Your task to perform on an android device: Show the shopping cart on target.com. Search for acer predator on target.com, select the first entry, add it to the cart, then select checkout. Image 0: 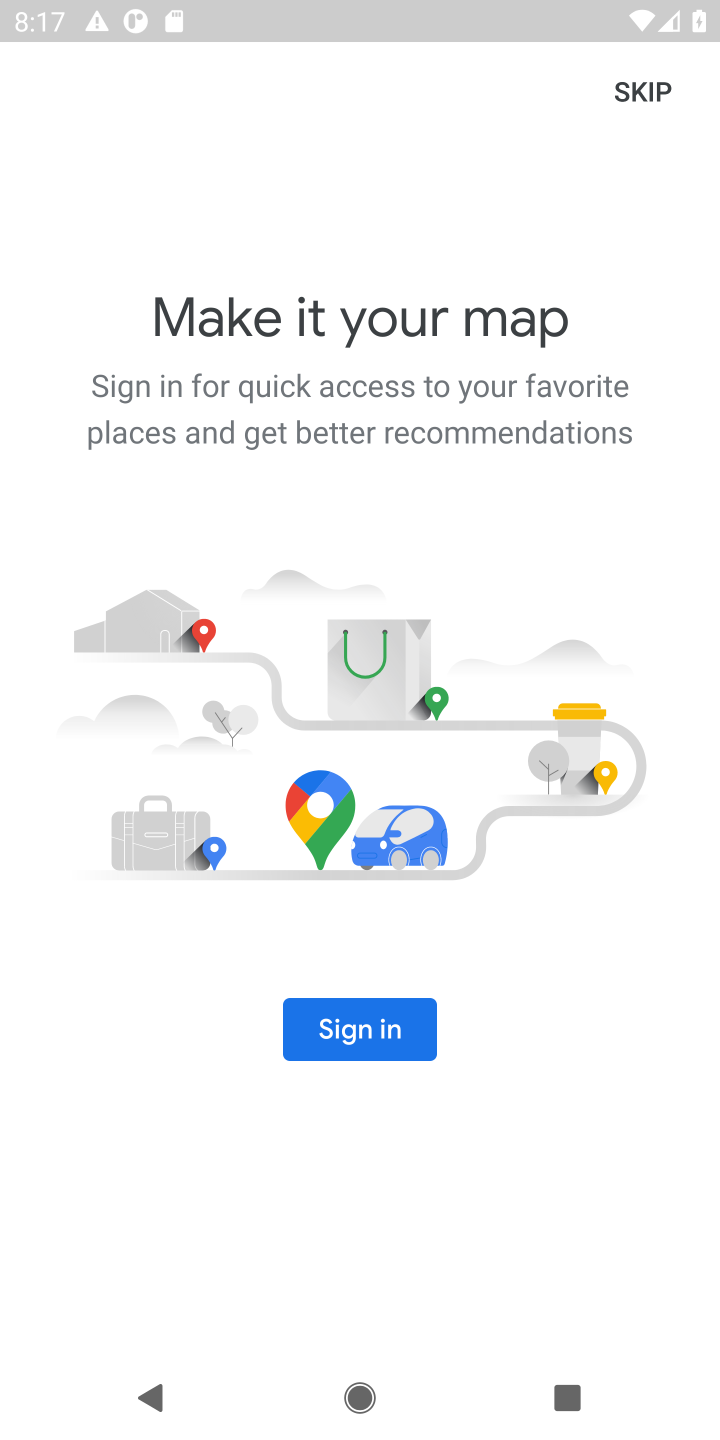
Step 0: press home button
Your task to perform on an android device: Show the shopping cart on target.com. Search for acer predator on target.com, select the first entry, add it to the cart, then select checkout. Image 1: 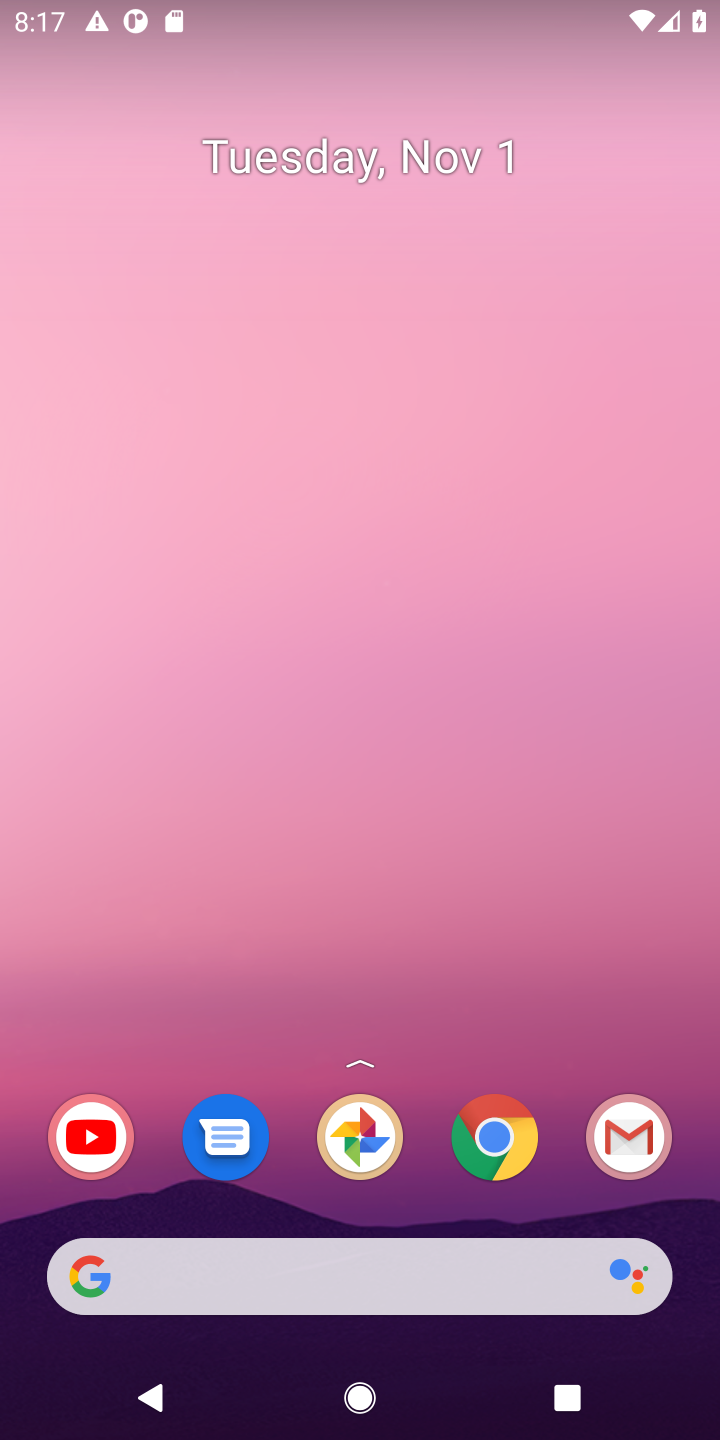
Step 1: click (347, 1292)
Your task to perform on an android device: Show the shopping cart on target.com. Search for acer predator on target.com, select the first entry, add it to the cart, then select checkout. Image 2: 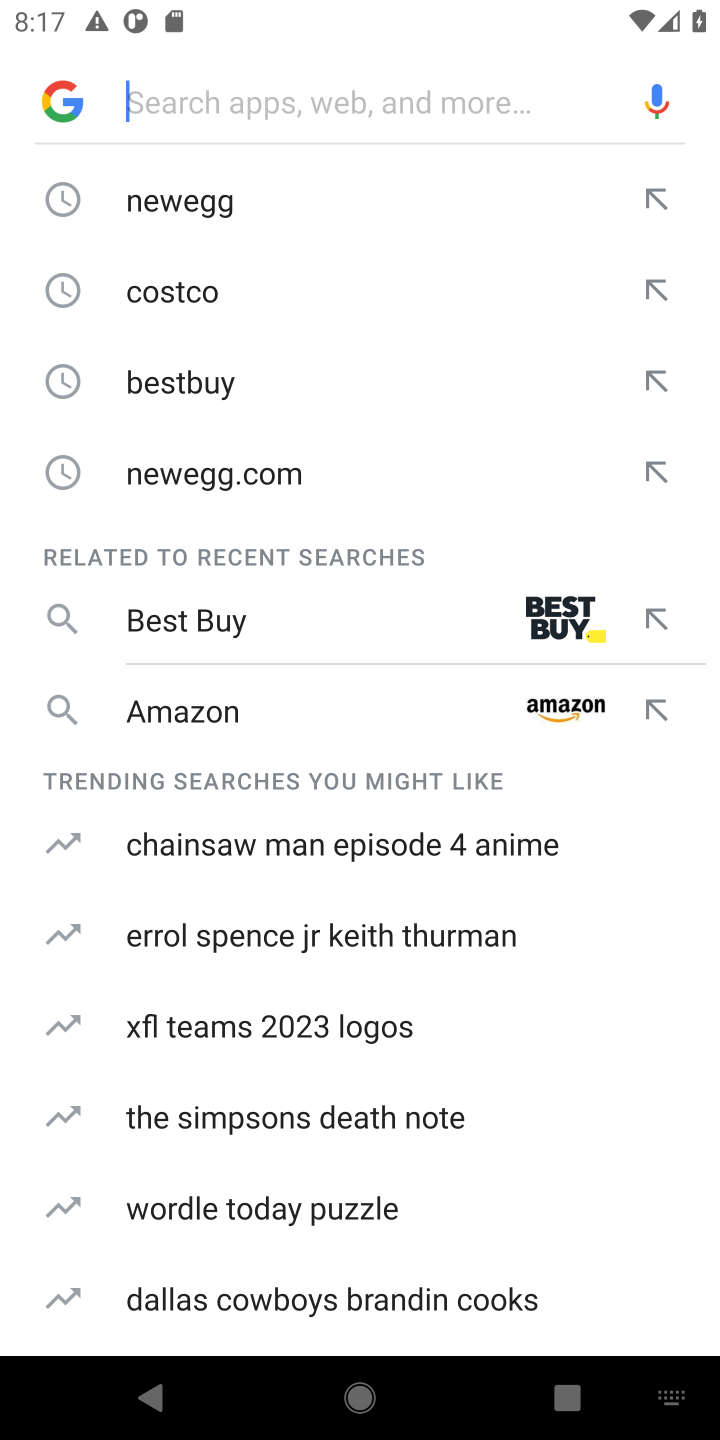
Step 2: type "target.com."
Your task to perform on an android device: Show the shopping cart on target.com. Search for acer predator on target.com, select the first entry, add it to the cart, then select checkout. Image 3: 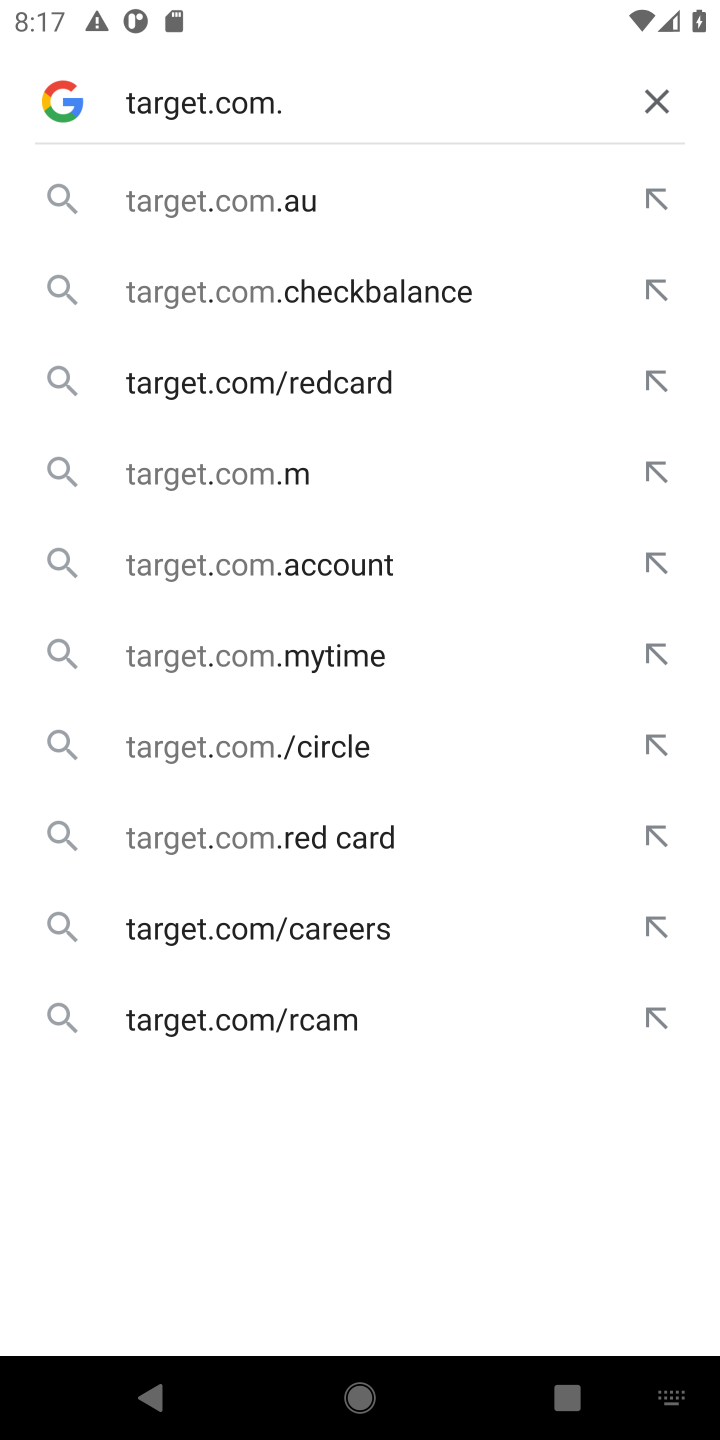
Step 3: click (192, 462)
Your task to perform on an android device: Show the shopping cart on target.com. Search for acer predator on target.com, select the first entry, add it to the cart, then select checkout. Image 4: 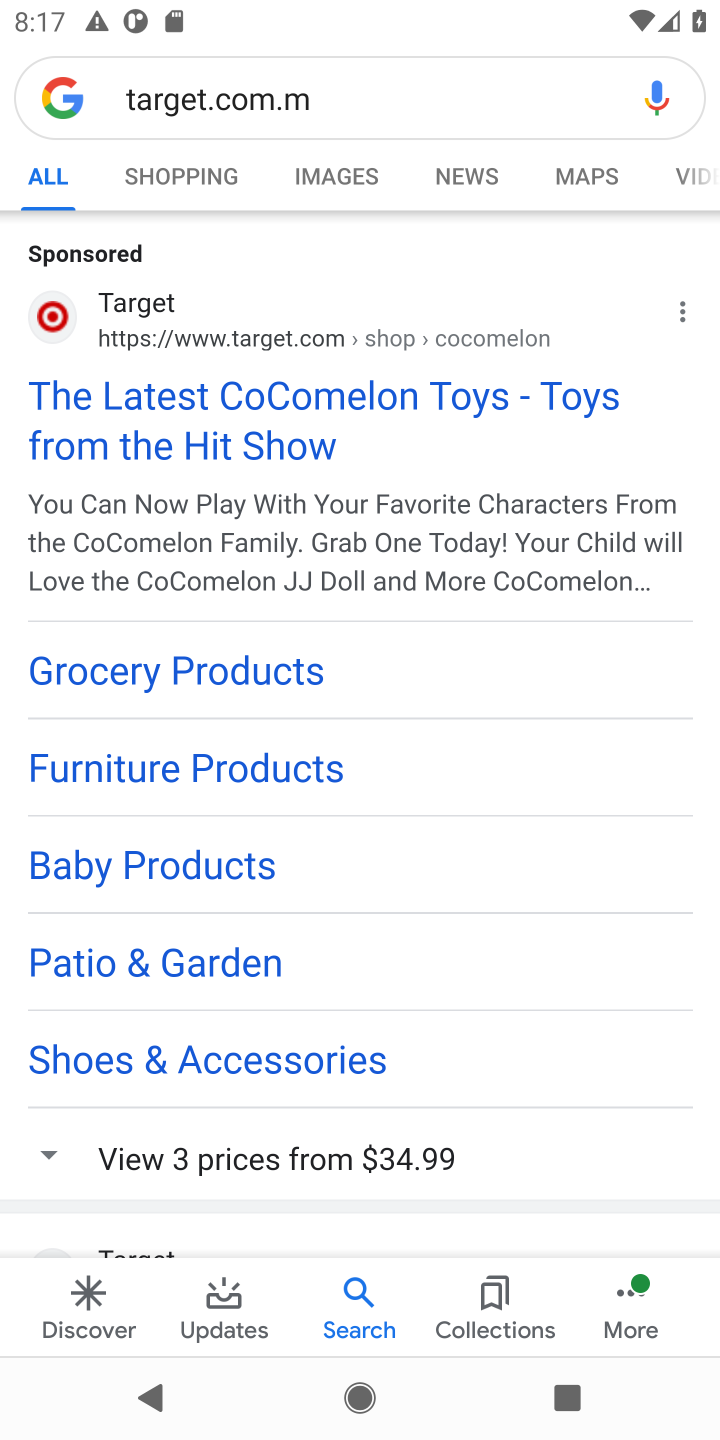
Step 4: click (141, 332)
Your task to perform on an android device: Show the shopping cart on target.com. Search for acer predator on target.com, select the first entry, add it to the cart, then select checkout. Image 5: 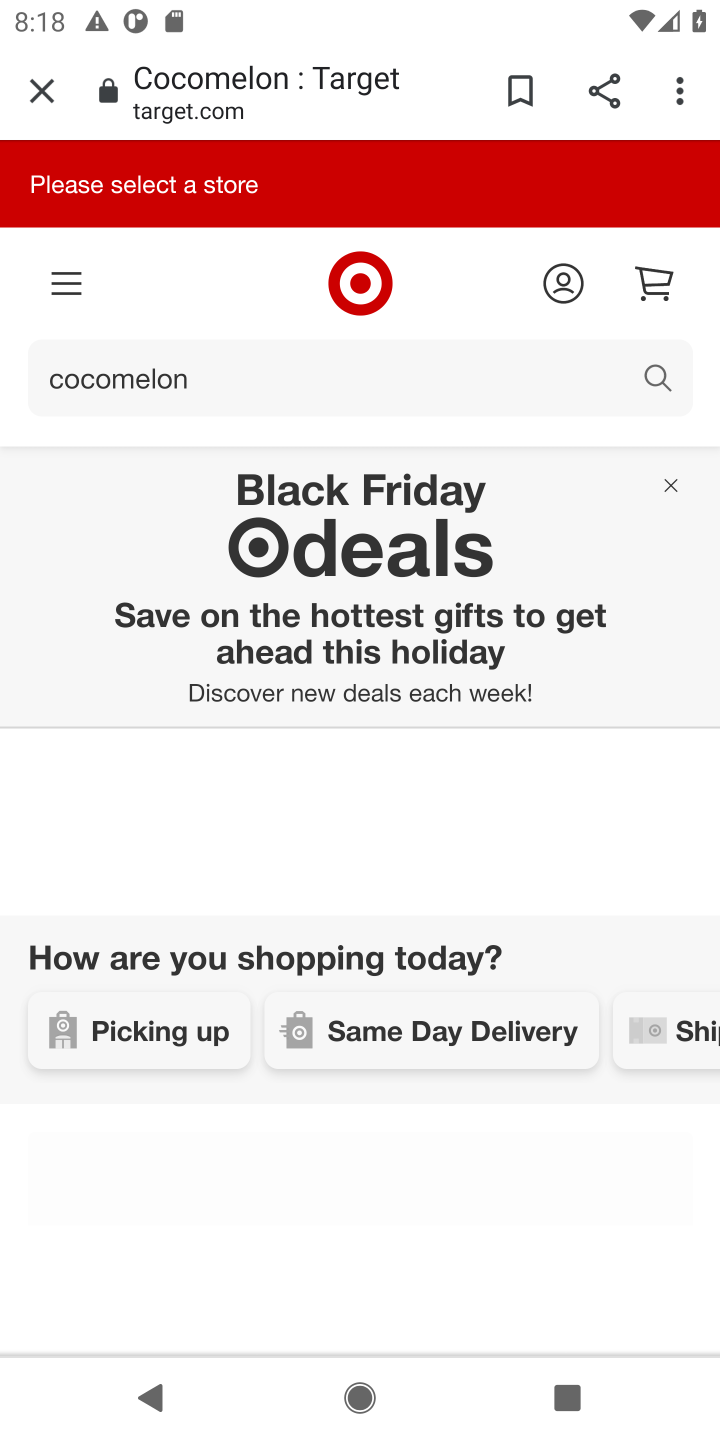
Step 5: click (264, 378)
Your task to perform on an android device: Show the shopping cart on target.com. Search for acer predator on target.com, select the first entry, add it to the cart, then select checkout. Image 6: 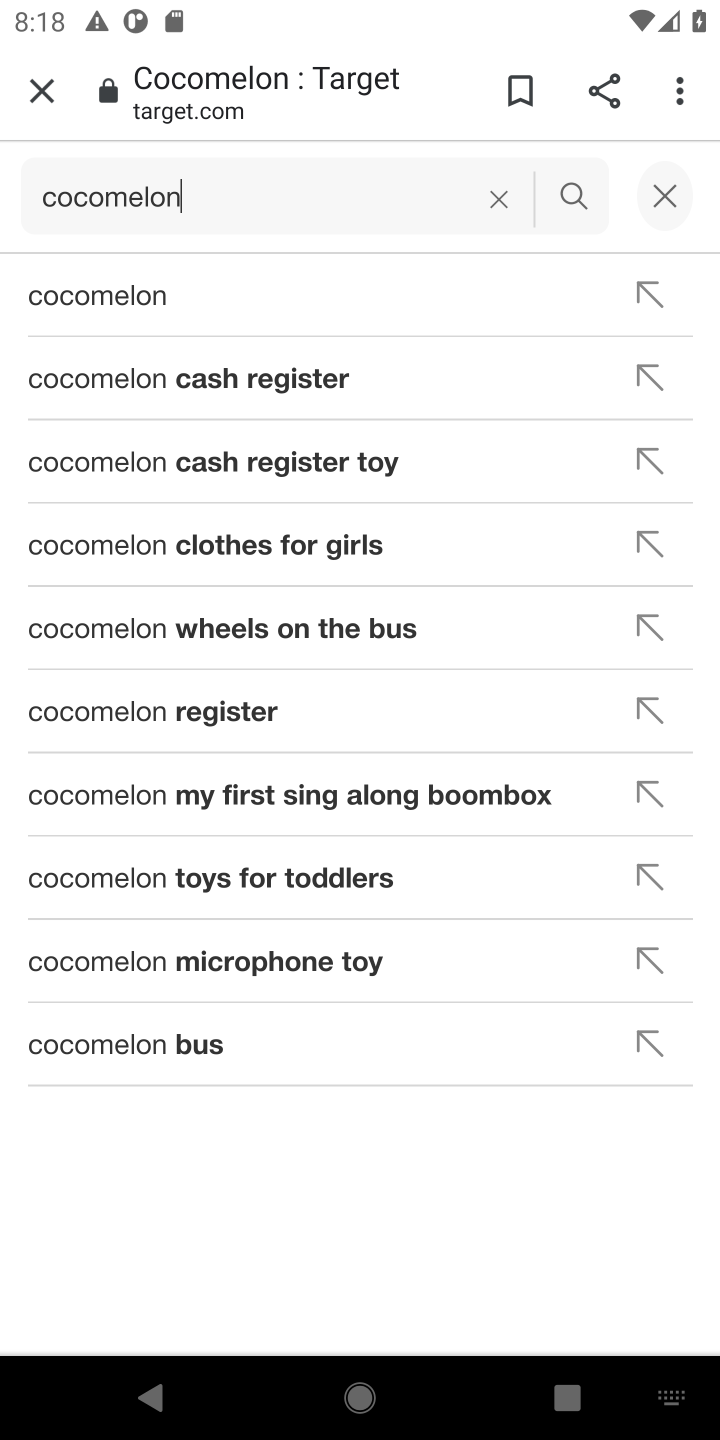
Step 6: click (491, 197)
Your task to perform on an android device: Show the shopping cart on target.com. Search for acer predator on target.com, select the first entry, add it to the cart, then select checkout. Image 7: 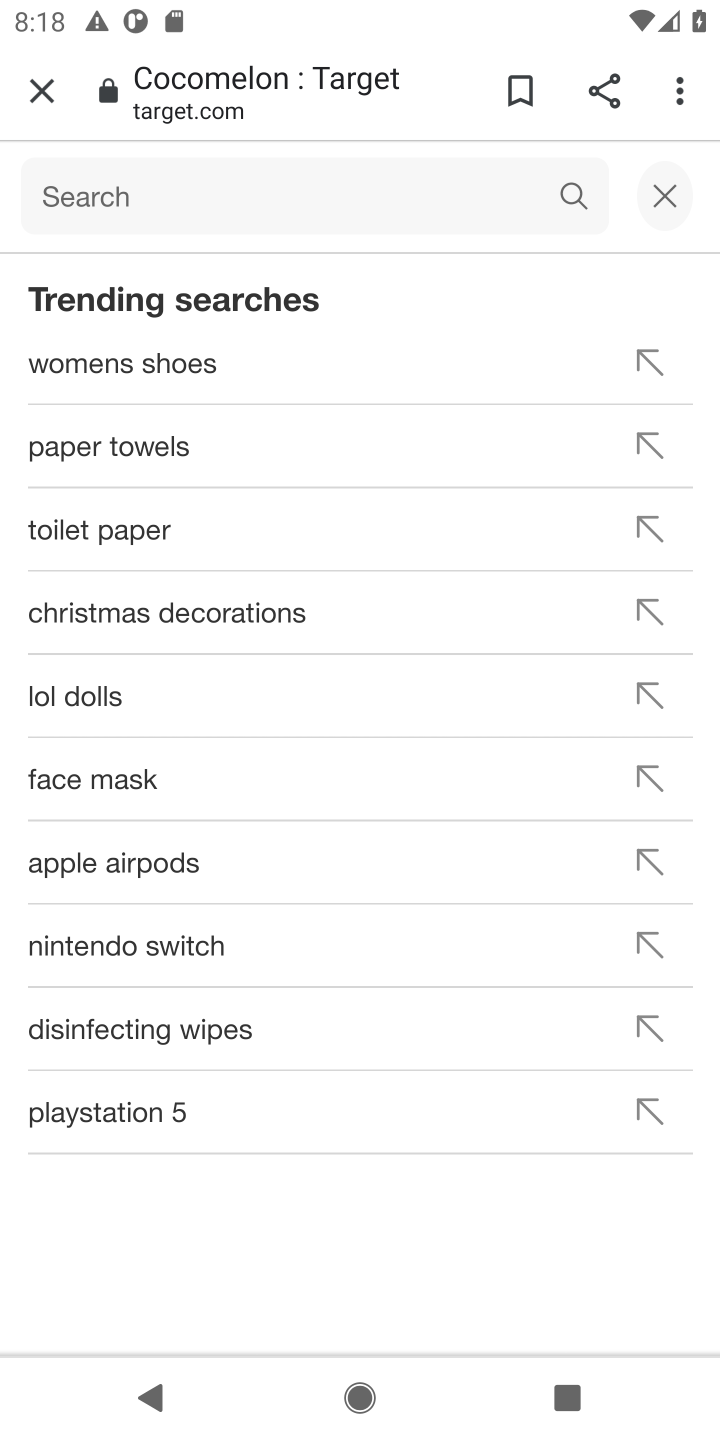
Step 7: click (493, 186)
Your task to perform on an android device: Show the shopping cart on target.com. Search for acer predator on target.com, select the first entry, add it to the cart, then select checkout. Image 8: 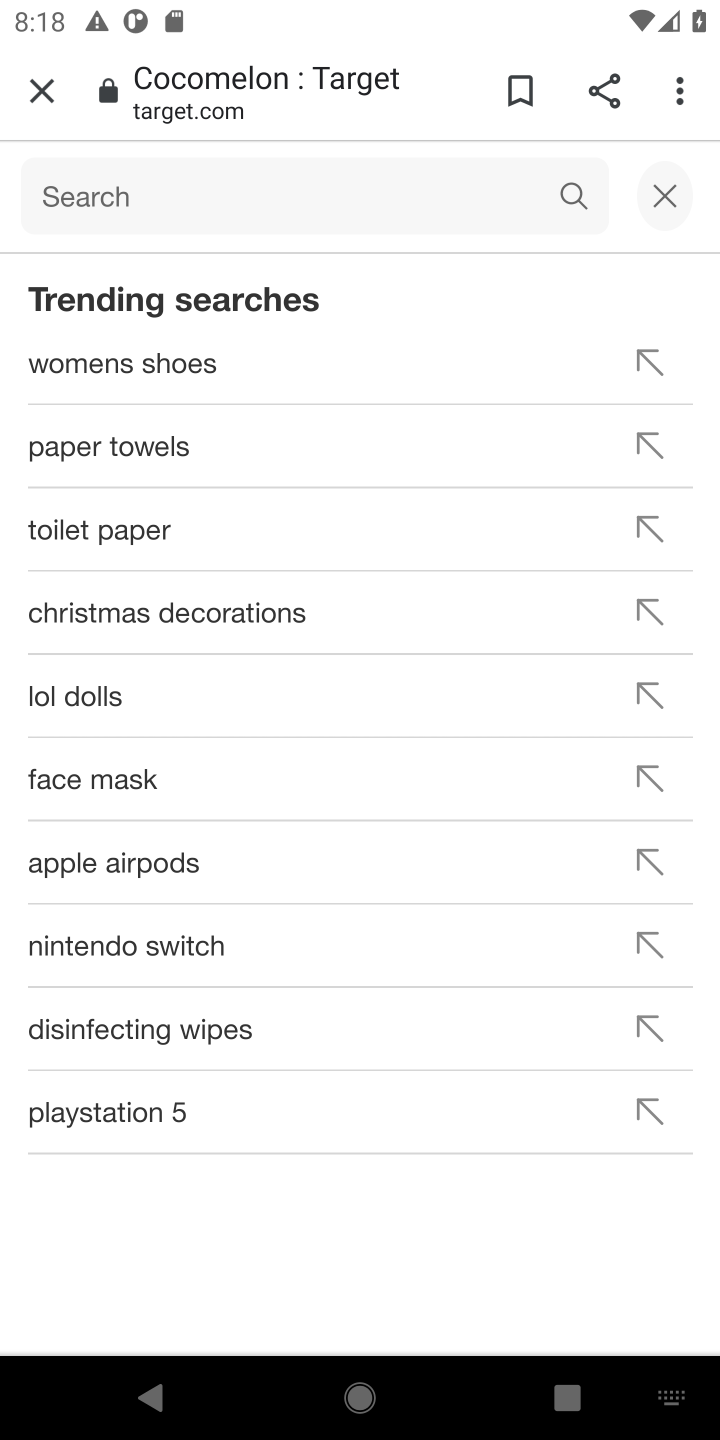
Step 8: type "acer predator"
Your task to perform on an android device: Show the shopping cart on target.com. Search for acer predator on target.com, select the first entry, add it to the cart, then select checkout. Image 9: 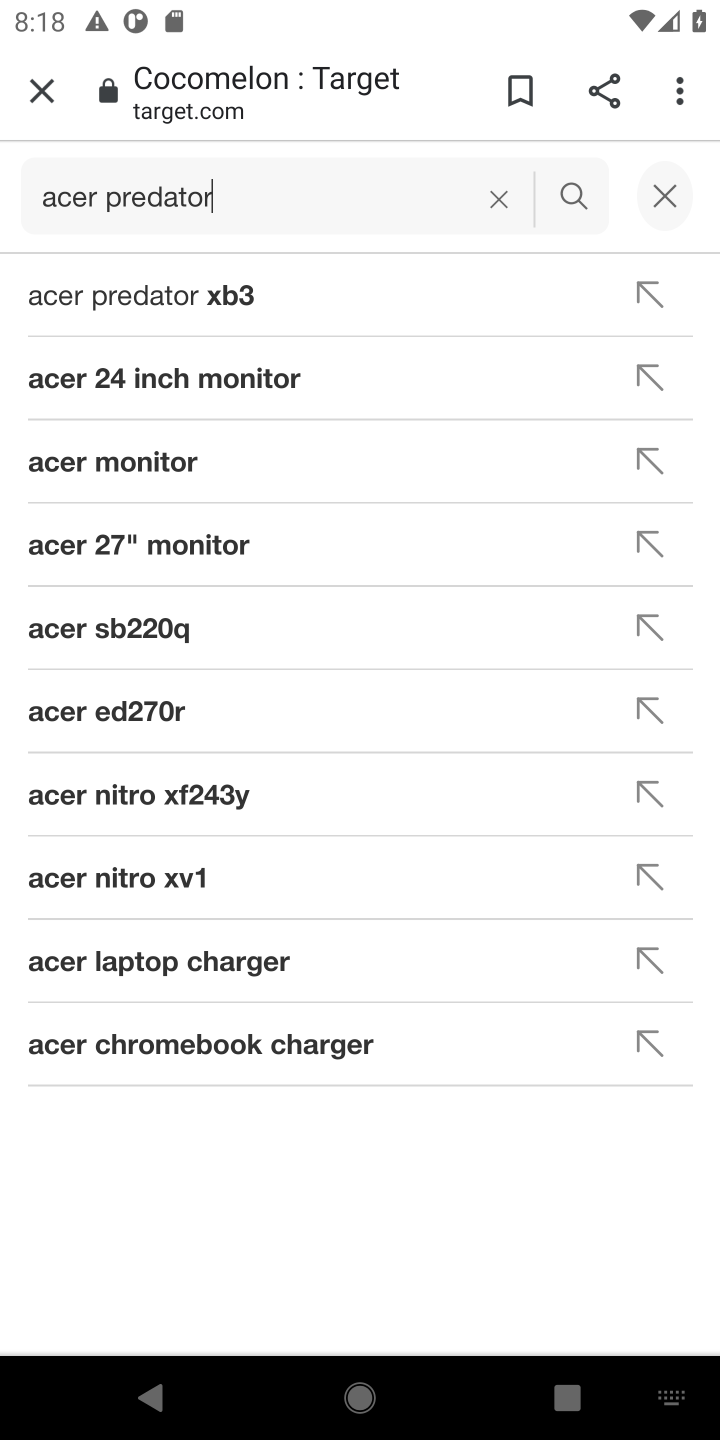
Step 9: click (216, 303)
Your task to perform on an android device: Show the shopping cart on target.com. Search for acer predator on target.com, select the first entry, add it to the cart, then select checkout. Image 10: 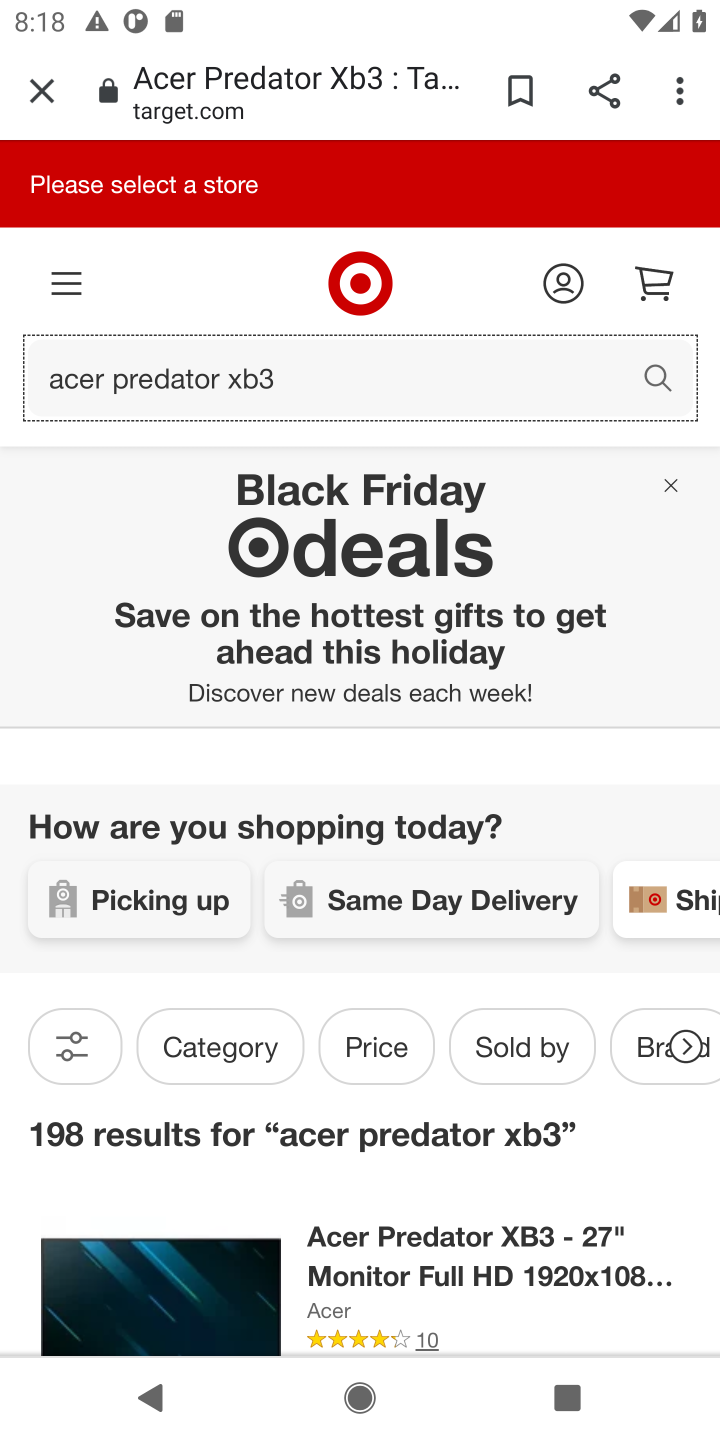
Step 10: click (395, 1238)
Your task to perform on an android device: Show the shopping cart on target.com. Search for acer predator on target.com, select the first entry, add it to the cart, then select checkout. Image 11: 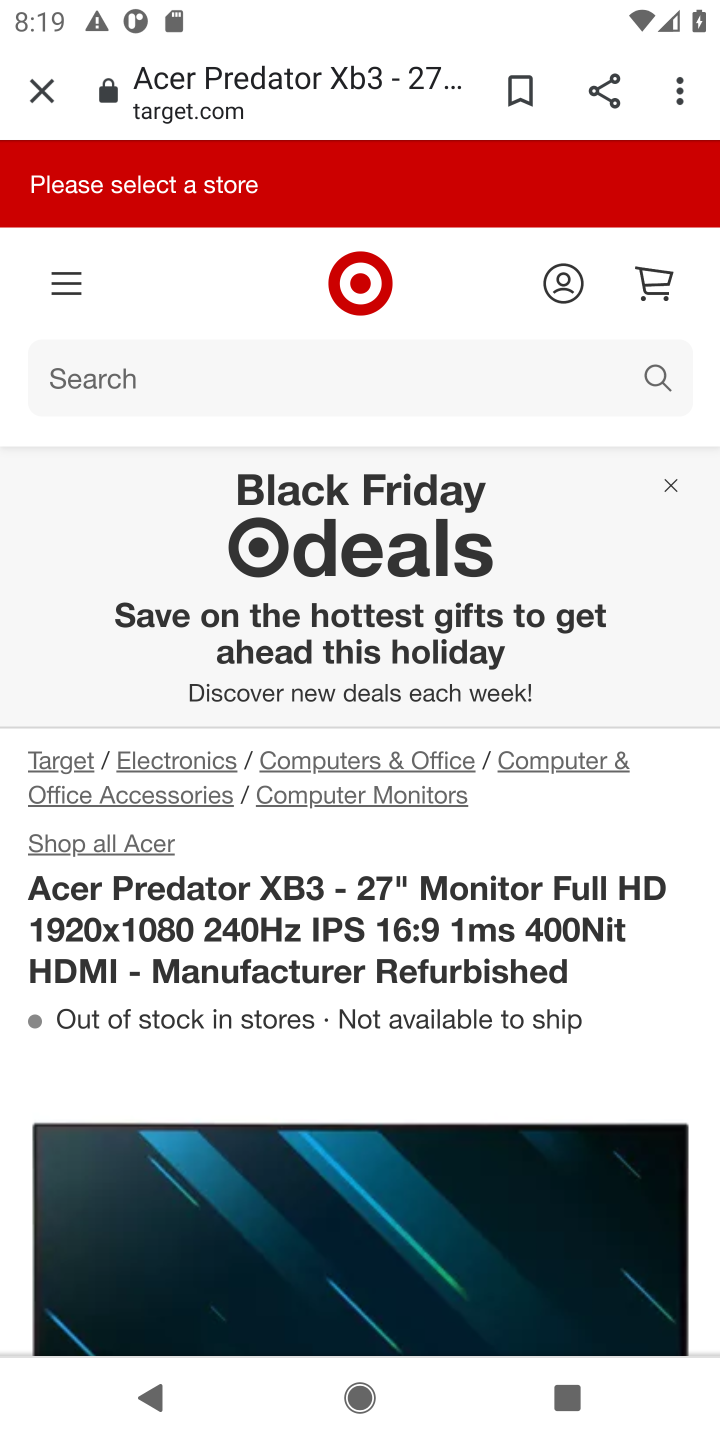
Step 11: drag from (380, 1228) to (495, 572)
Your task to perform on an android device: Show the shopping cart on target.com. Search for acer predator on target.com, select the first entry, add it to the cart, then select checkout. Image 12: 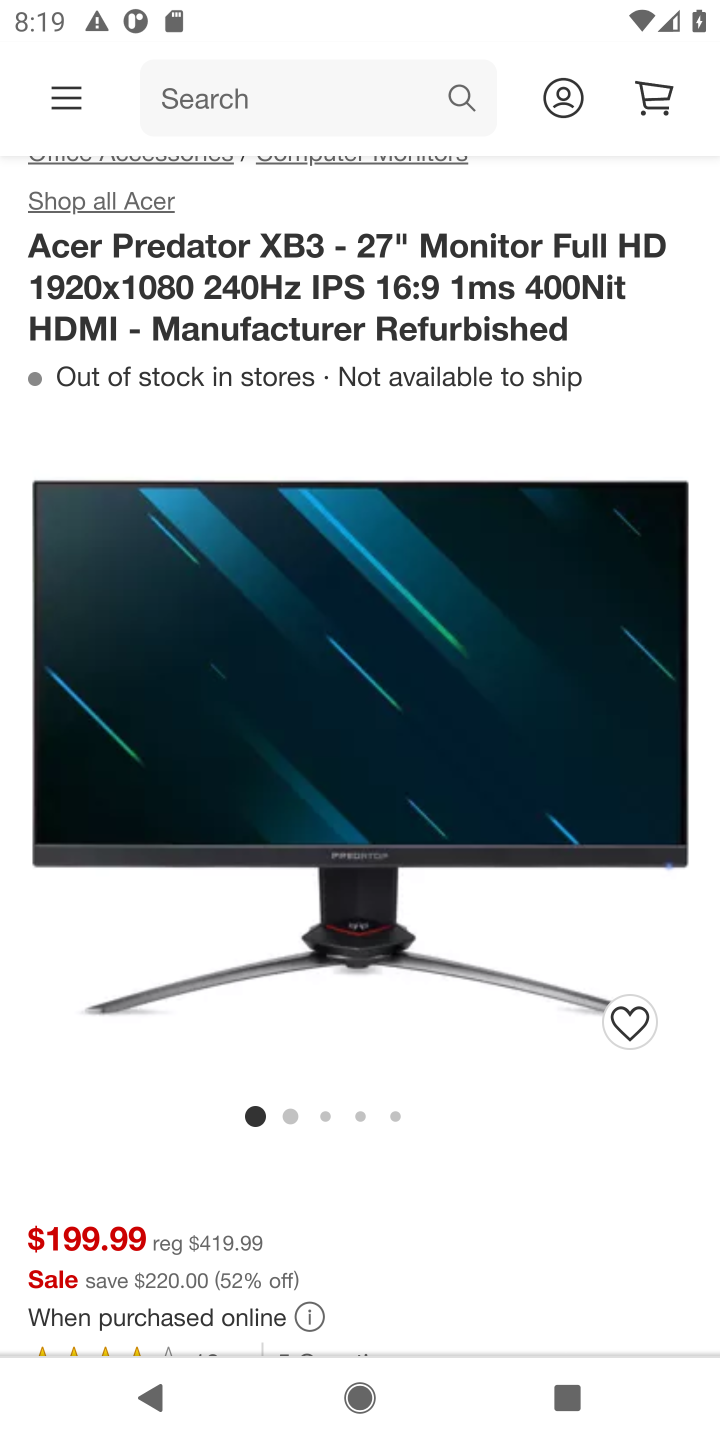
Step 12: drag from (394, 933) to (388, 672)
Your task to perform on an android device: Show the shopping cart on target.com. Search for acer predator on target.com, select the first entry, add it to the cart, then select checkout. Image 13: 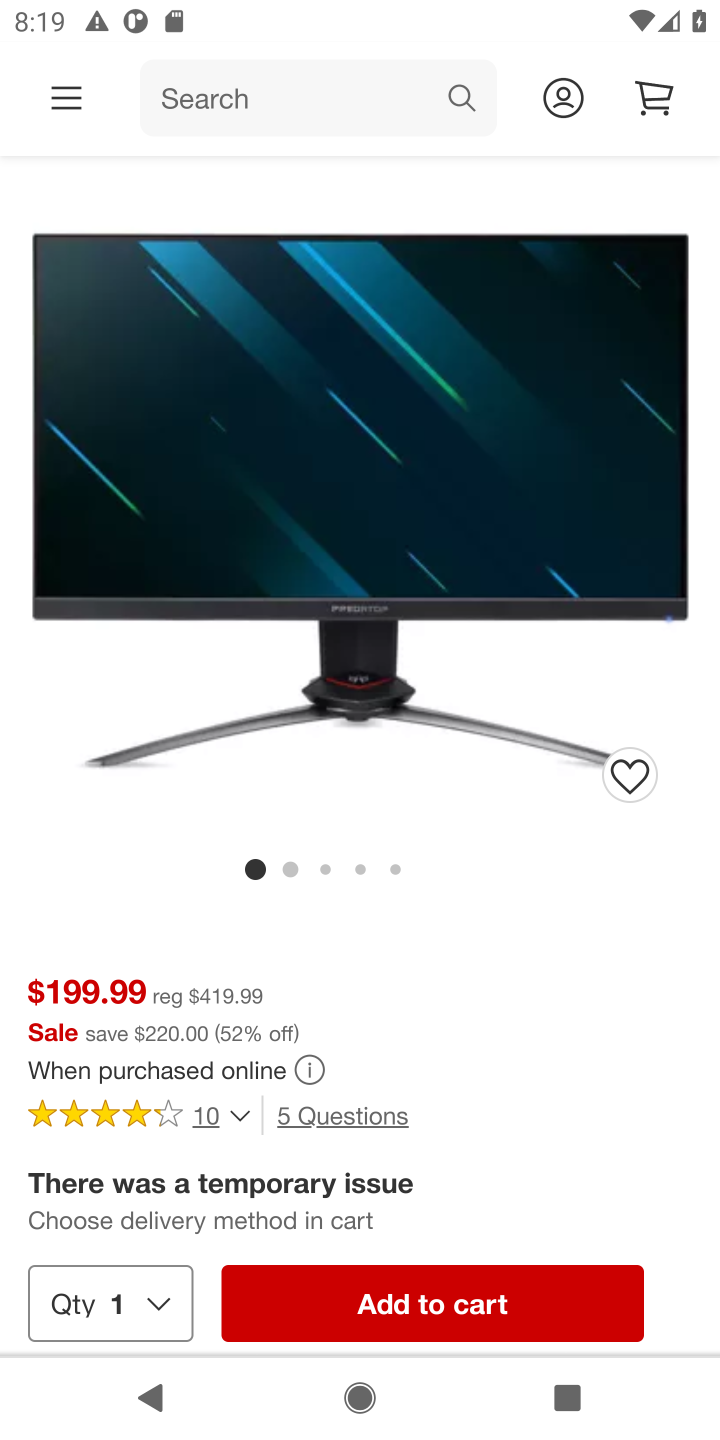
Step 13: click (427, 1310)
Your task to perform on an android device: Show the shopping cart on target.com. Search for acer predator on target.com, select the first entry, add it to the cart, then select checkout. Image 14: 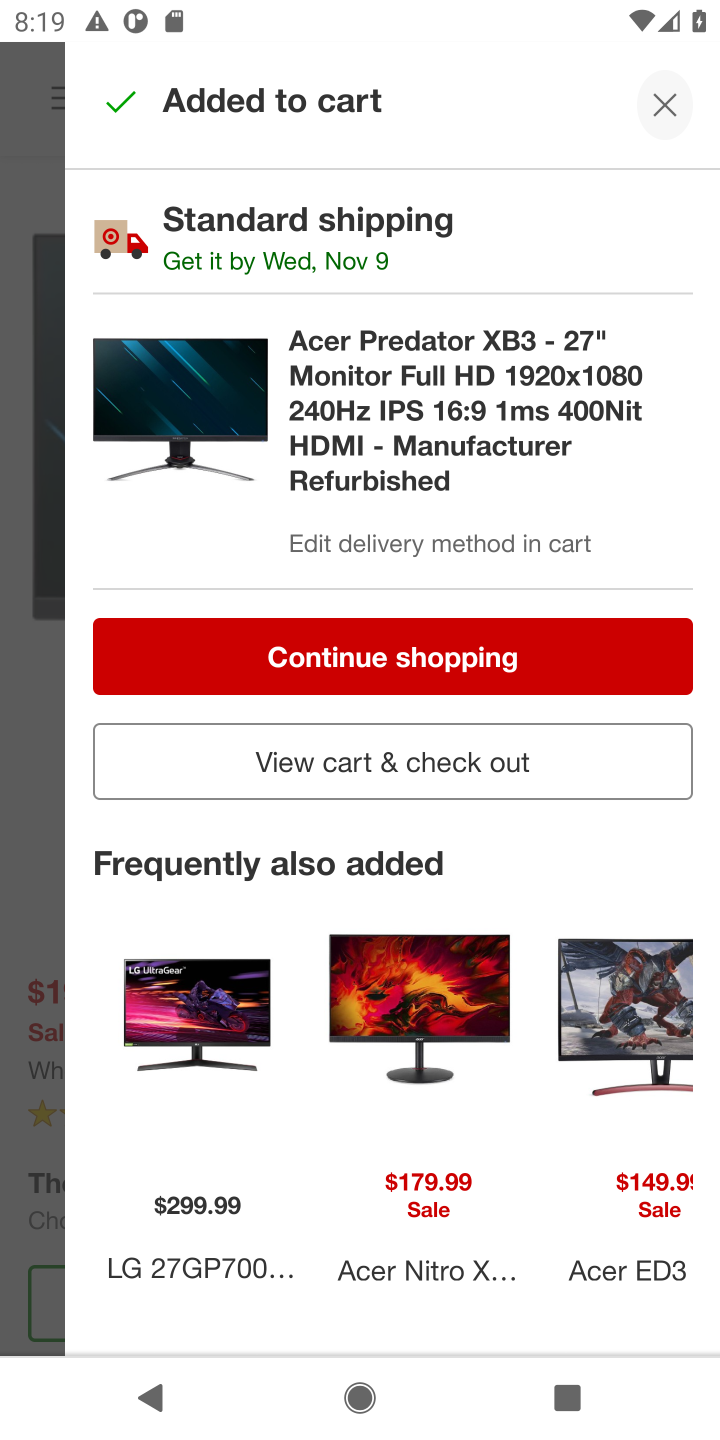
Step 14: click (354, 775)
Your task to perform on an android device: Show the shopping cart on target.com. Search for acer predator on target.com, select the first entry, add it to the cart, then select checkout. Image 15: 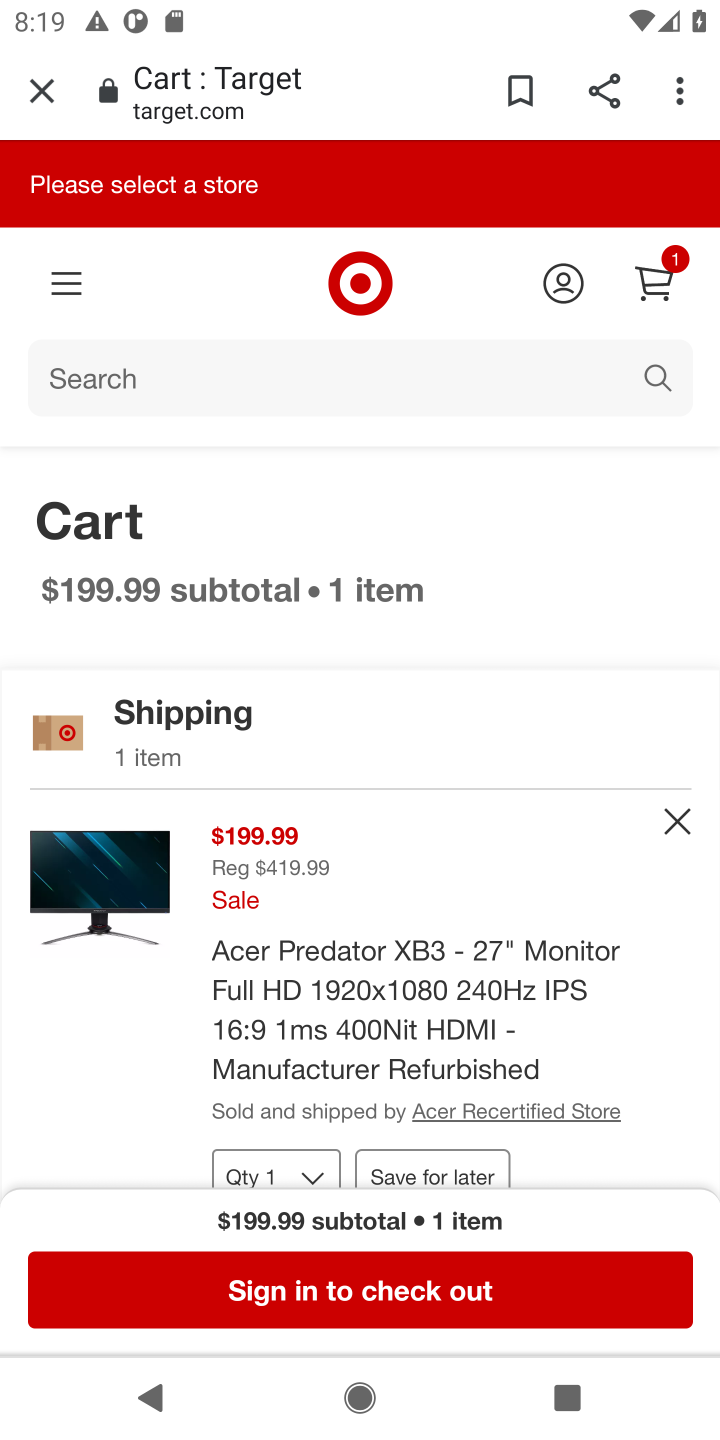
Step 15: click (332, 1276)
Your task to perform on an android device: Show the shopping cart on target.com. Search for acer predator on target.com, select the first entry, add it to the cart, then select checkout. Image 16: 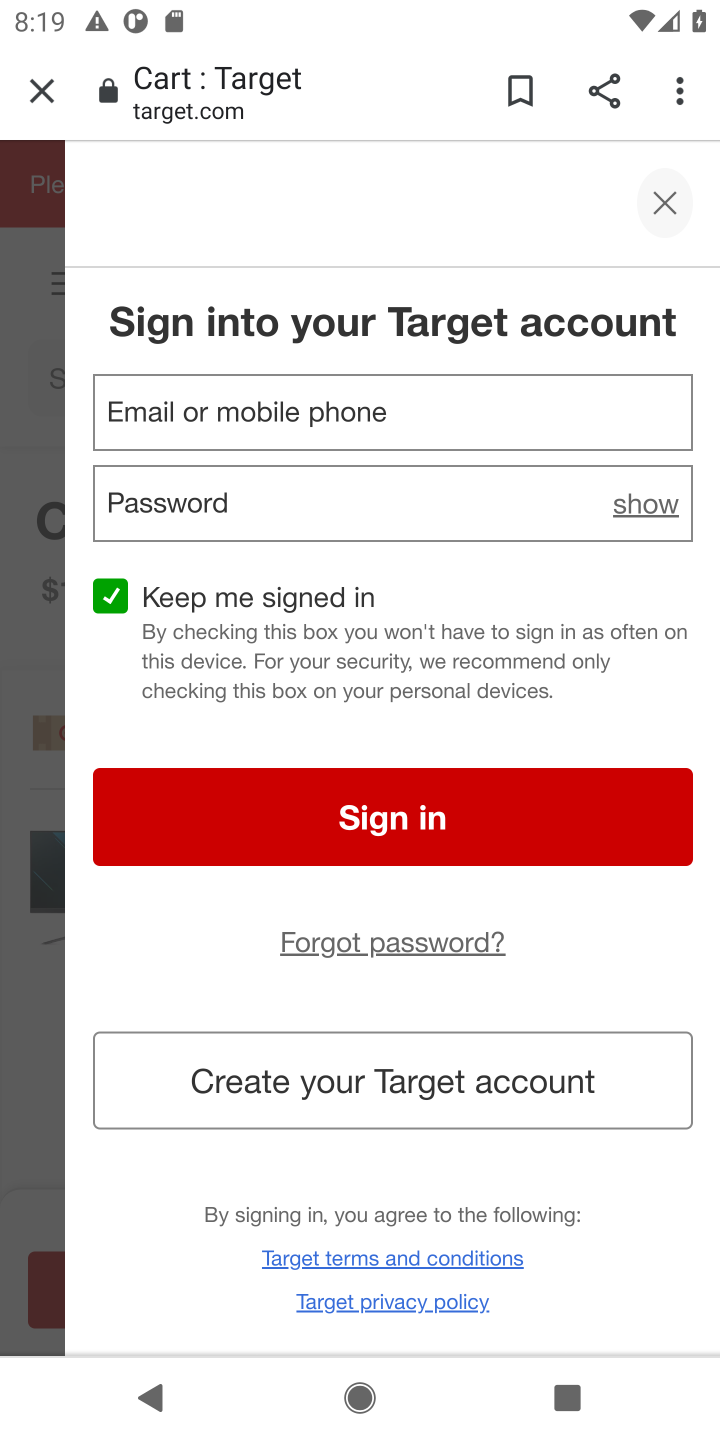
Step 16: task complete